Your task to perform on an android device: When is my next appointment? Image 0: 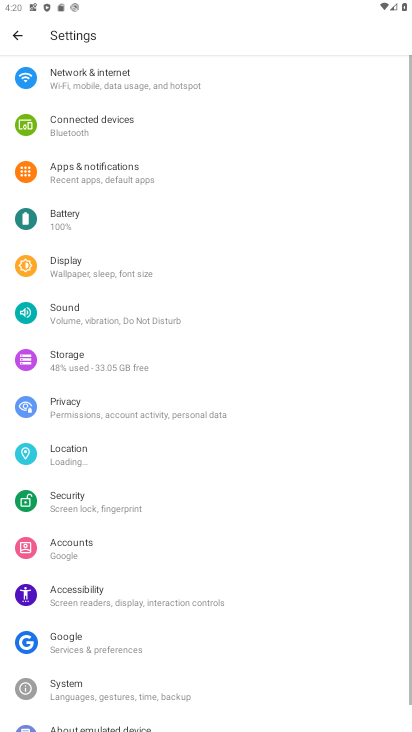
Step 0: drag from (214, 661) to (314, 269)
Your task to perform on an android device: When is my next appointment? Image 1: 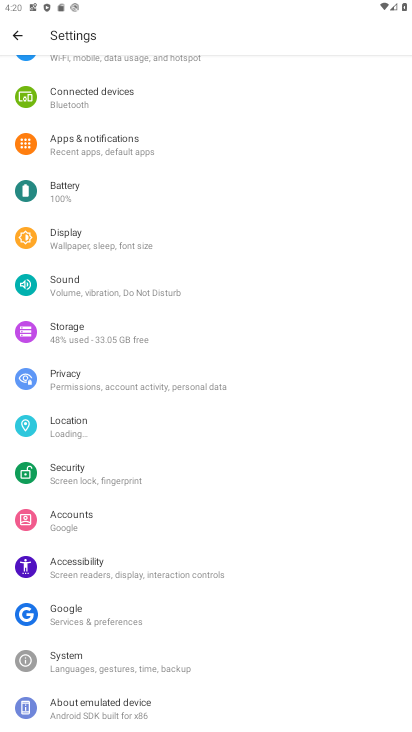
Step 1: press home button
Your task to perform on an android device: When is my next appointment? Image 2: 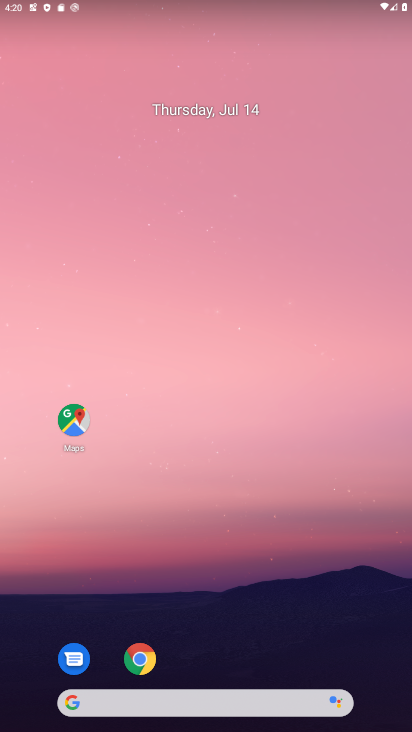
Step 2: drag from (219, 659) to (243, 76)
Your task to perform on an android device: When is my next appointment? Image 3: 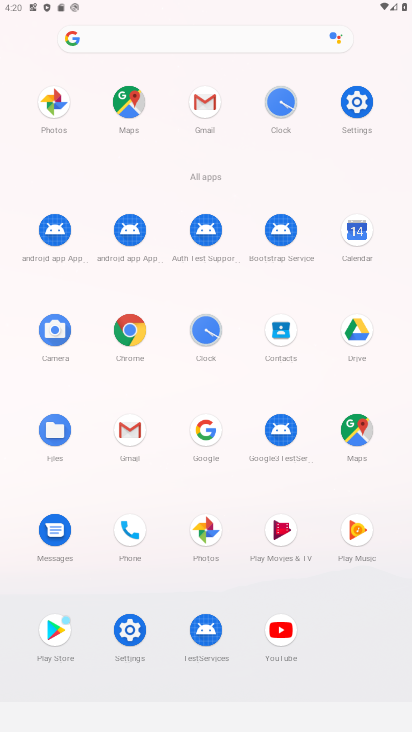
Step 3: click (354, 228)
Your task to perform on an android device: When is my next appointment? Image 4: 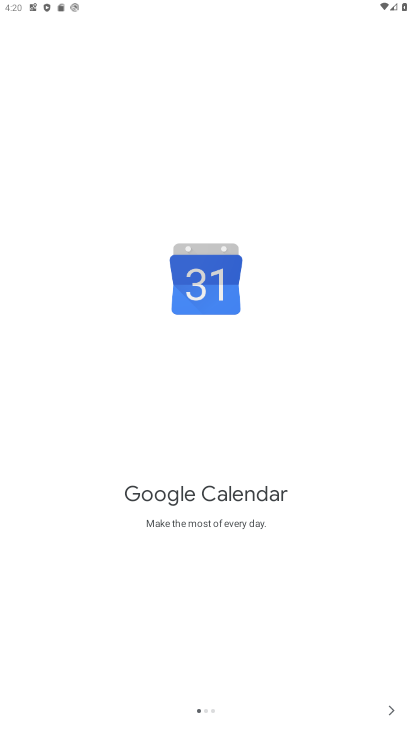
Step 4: click (385, 705)
Your task to perform on an android device: When is my next appointment? Image 5: 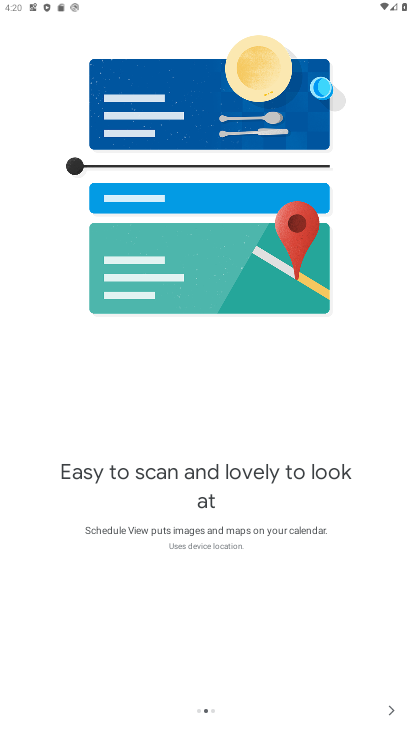
Step 5: click (387, 668)
Your task to perform on an android device: When is my next appointment? Image 6: 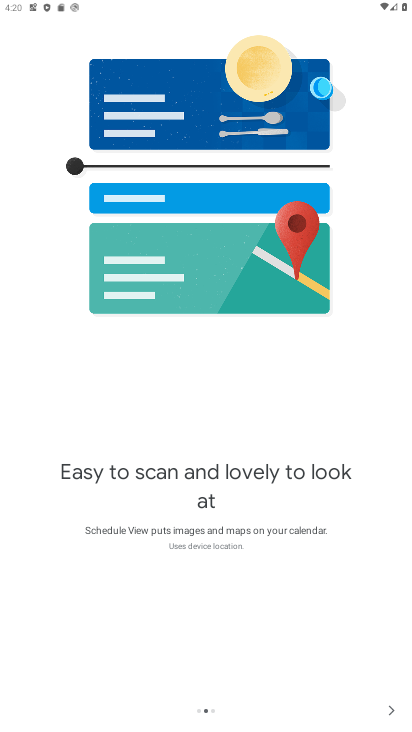
Step 6: click (392, 706)
Your task to perform on an android device: When is my next appointment? Image 7: 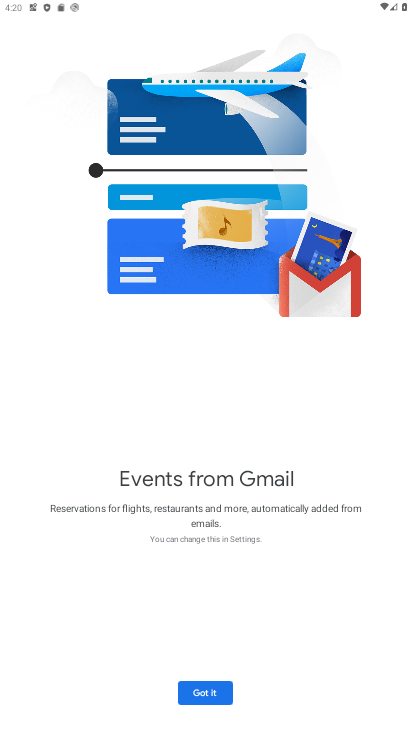
Step 7: click (198, 684)
Your task to perform on an android device: When is my next appointment? Image 8: 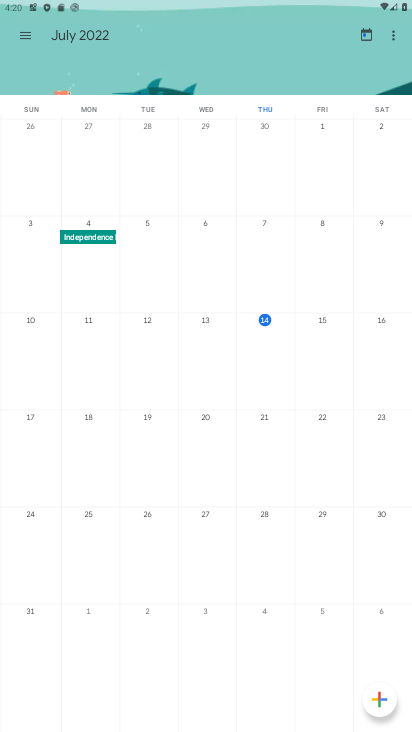
Step 8: drag from (372, 405) to (0, 371)
Your task to perform on an android device: When is my next appointment? Image 9: 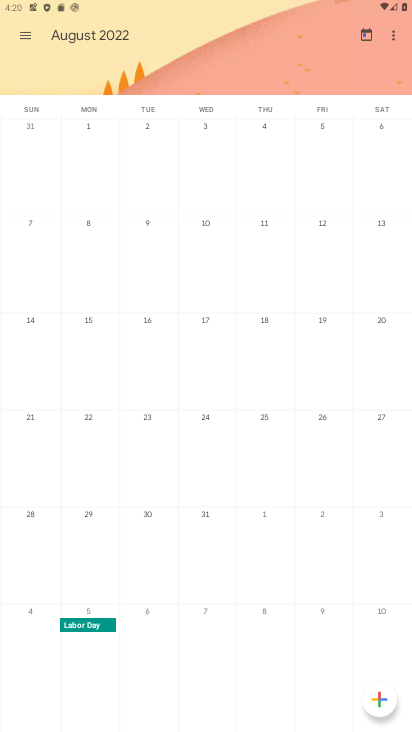
Step 9: drag from (40, 269) to (411, 306)
Your task to perform on an android device: When is my next appointment? Image 10: 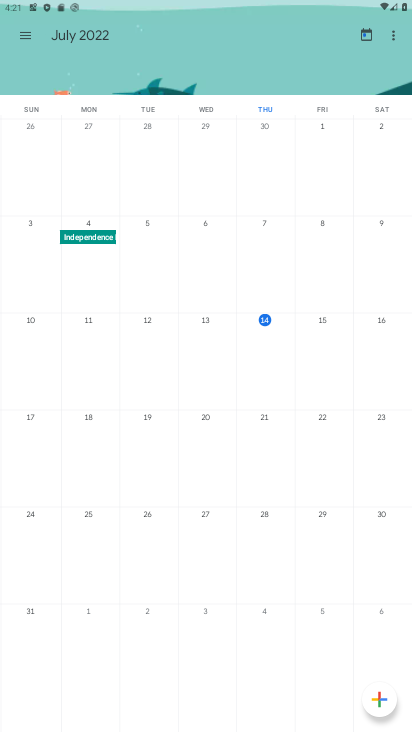
Step 10: click (21, 32)
Your task to perform on an android device: When is my next appointment? Image 11: 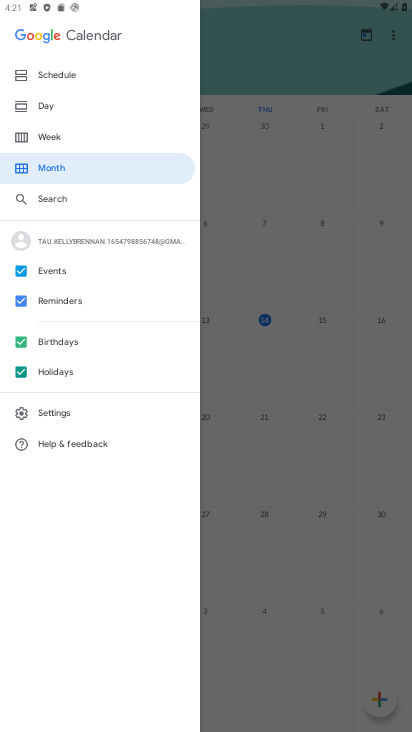
Step 11: click (57, 136)
Your task to perform on an android device: When is my next appointment? Image 12: 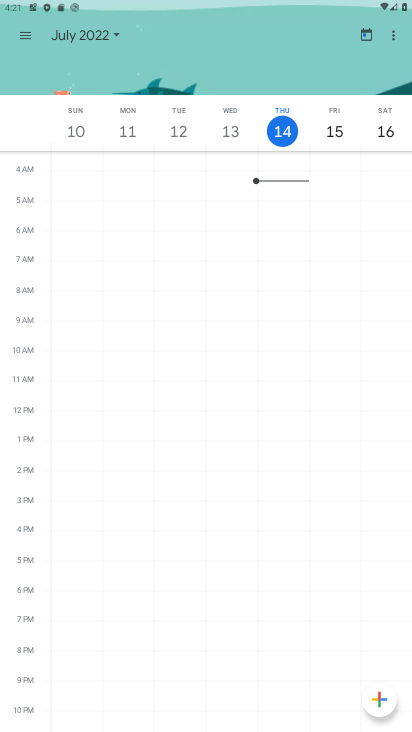
Step 12: drag from (378, 128) to (7, 125)
Your task to perform on an android device: When is my next appointment? Image 13: 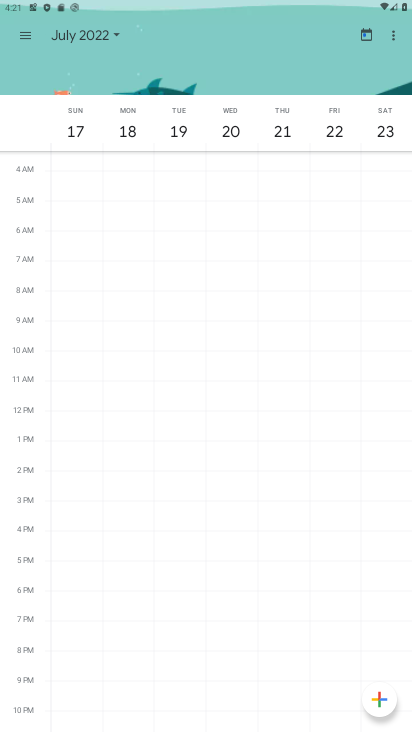
Step 13: click (76, 127)
Your task to perform on an android device: When is my next appointment? Image 14: 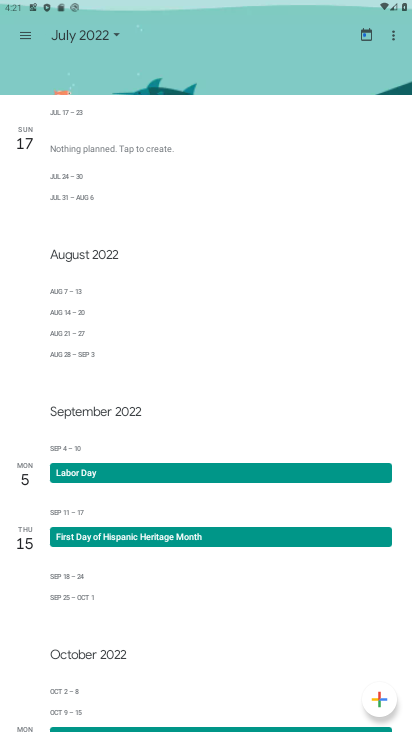
Step 14: task complete